Your task to perform on an android device: turn pop-ups off in chrome Image 0: 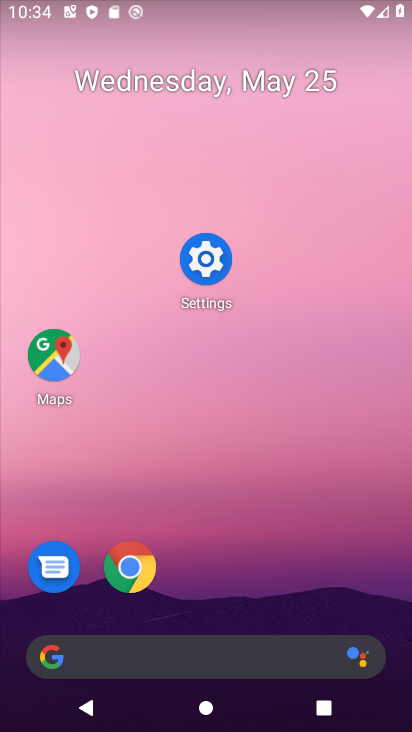
Step 0: click (318, 465)
Your task to perform on an android device: turn pop-ups off in chrome Image 1: 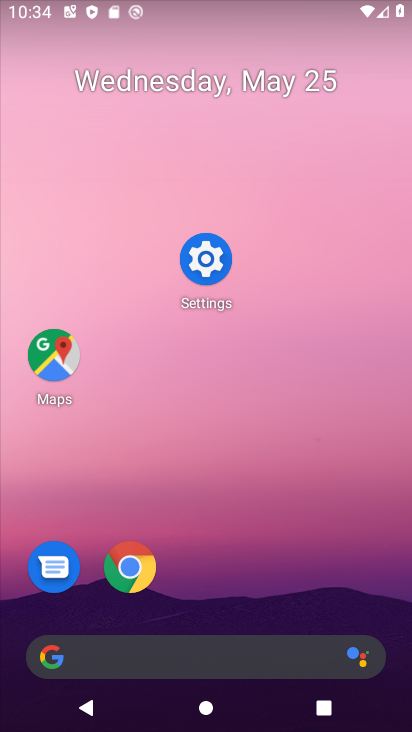
Step 1: click (319, 403)
Your task to perform on an android device: turn pop-ups off in chrome Image 2: 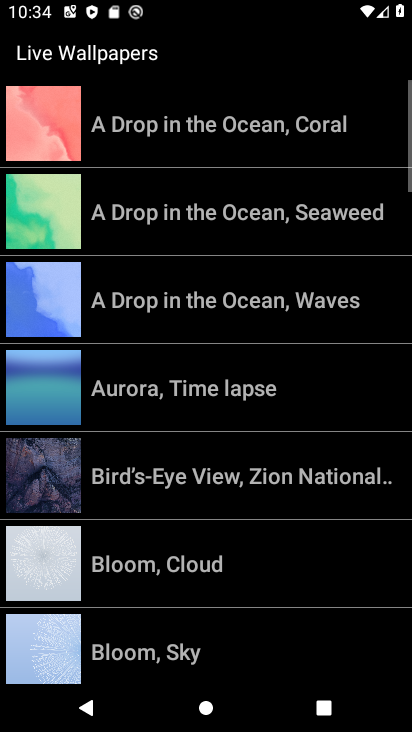
Step 2: press home button
Your task to perform on an android device: turn pop-ups off in chrome Image 3: 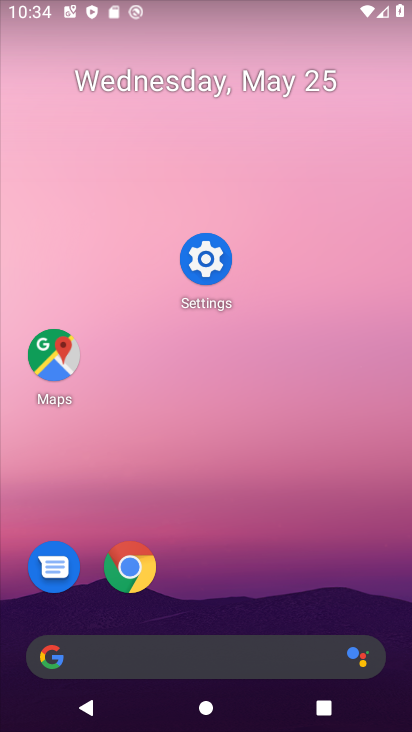
Step 3: click (152, 580)
Your task to perform on an android device: turn pop-ups off in chrome Image 4: 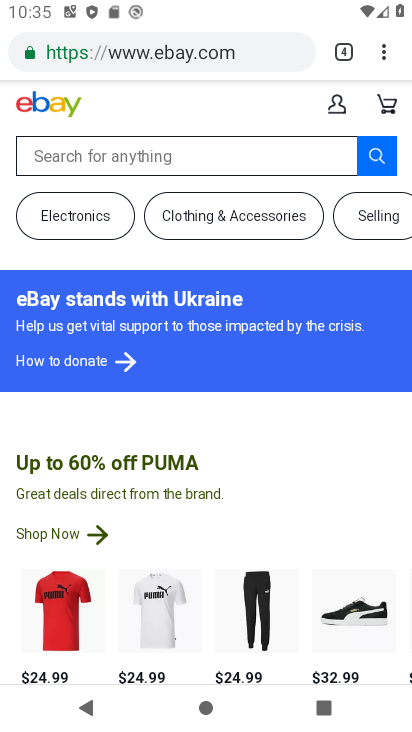
Step 4: click (382, 45)
Your task to perform on an android device: turn pop-ups off in chrome Image 5: 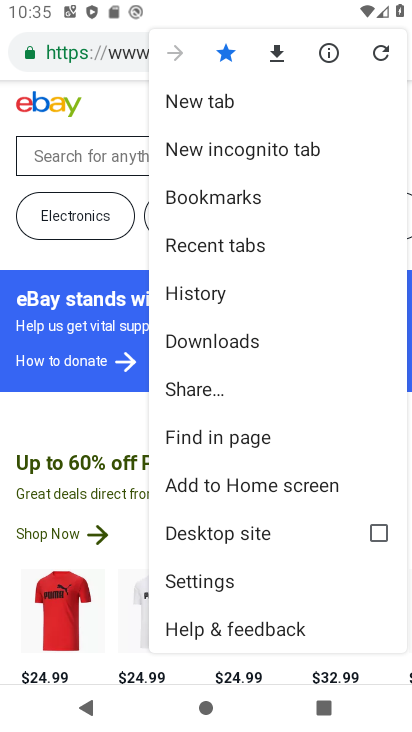
Step 5: click (242, 586)
Your task to perform on an android device: turn pop-ups off in chrome Image 6: 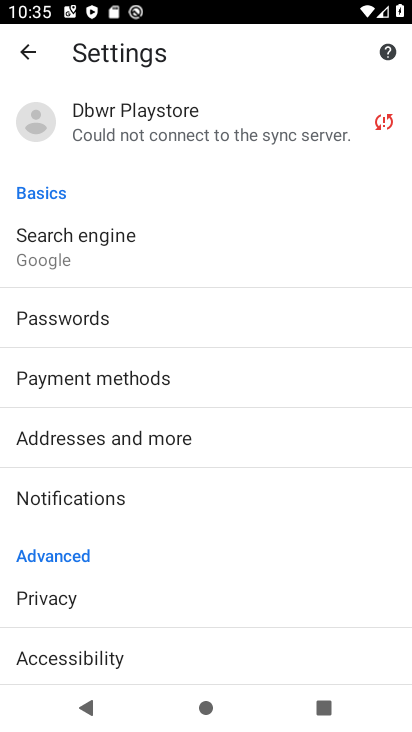
Step 6: drag from (182, 579) to (210, 303)
Your task to perform on an android device: turn pop-ups off in chrome Image 7: 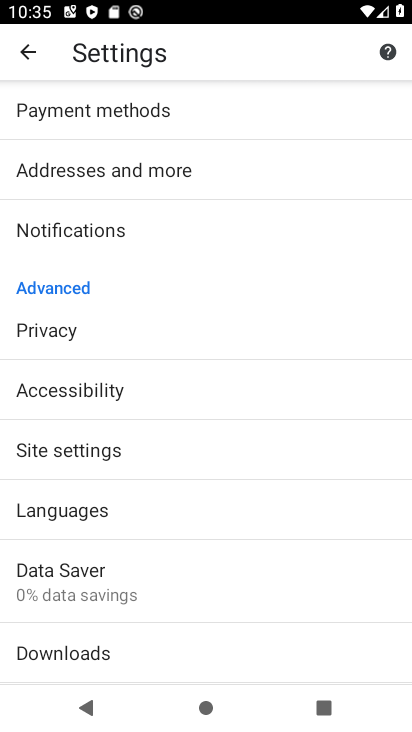
Step 7: click (185, 462)
Your task to perform on an android device: turn pop-ups off in chrome Image 8: 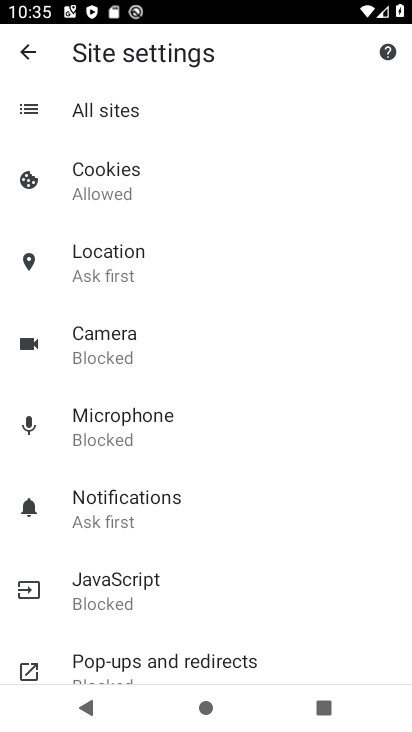
Step 8: click (158, 564)
Your task to perform on an android device: turn pop-ups off in chrome Image 9: 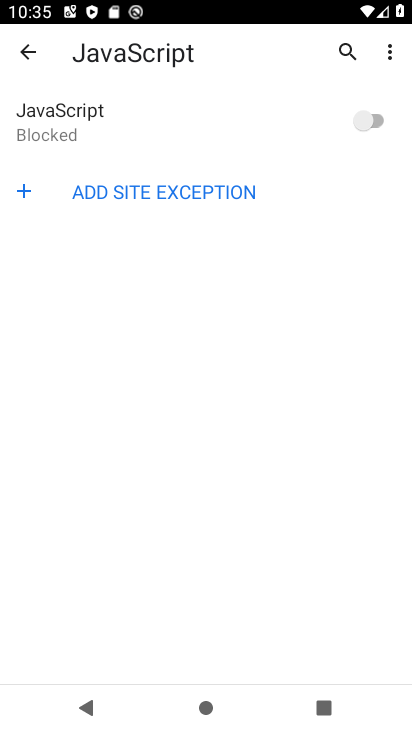
Step 9: task complete